Your task to perform on an android device: make emails show in primary in the gmail app Image 0: 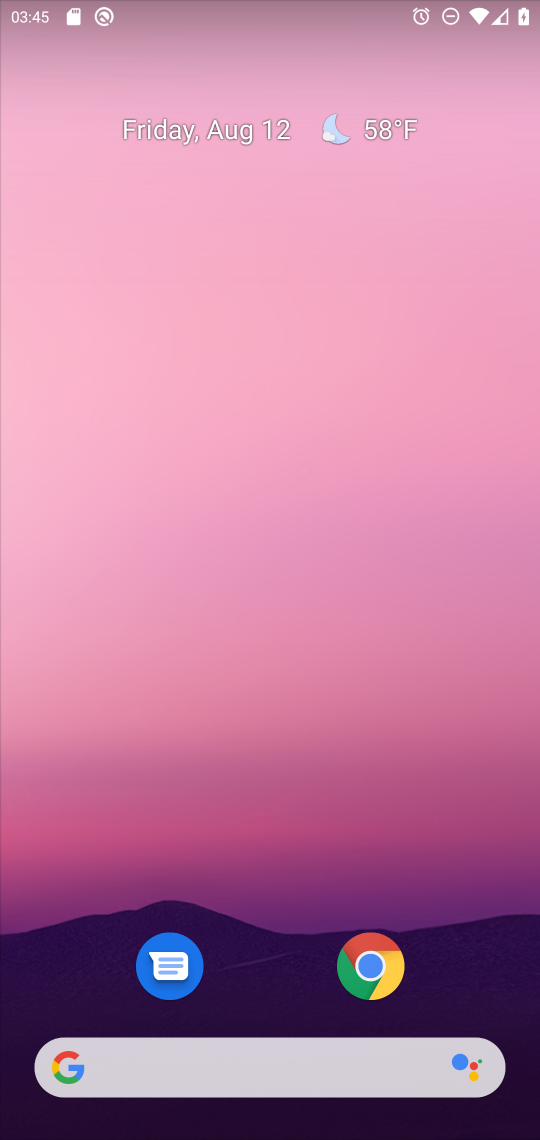
Step 0: drag from (282, 878) to (385, 56)
Your task to perform on an android device: make emails show in primary in the gmail app Image 1: 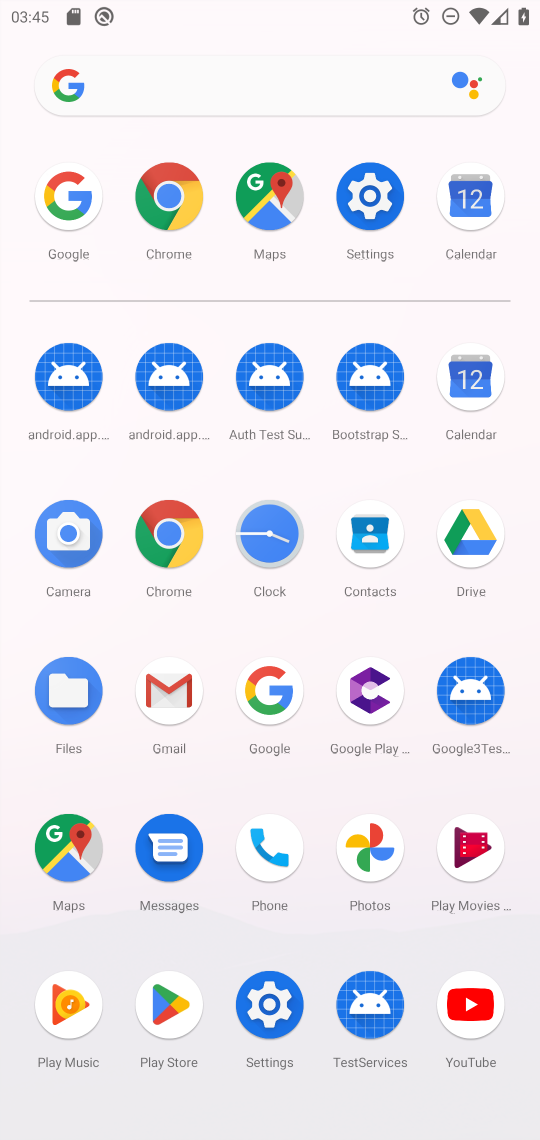
Step 1: click (178, 668)
Your task to perform on an android device: make emails show in primary in the gmail app Image 2: 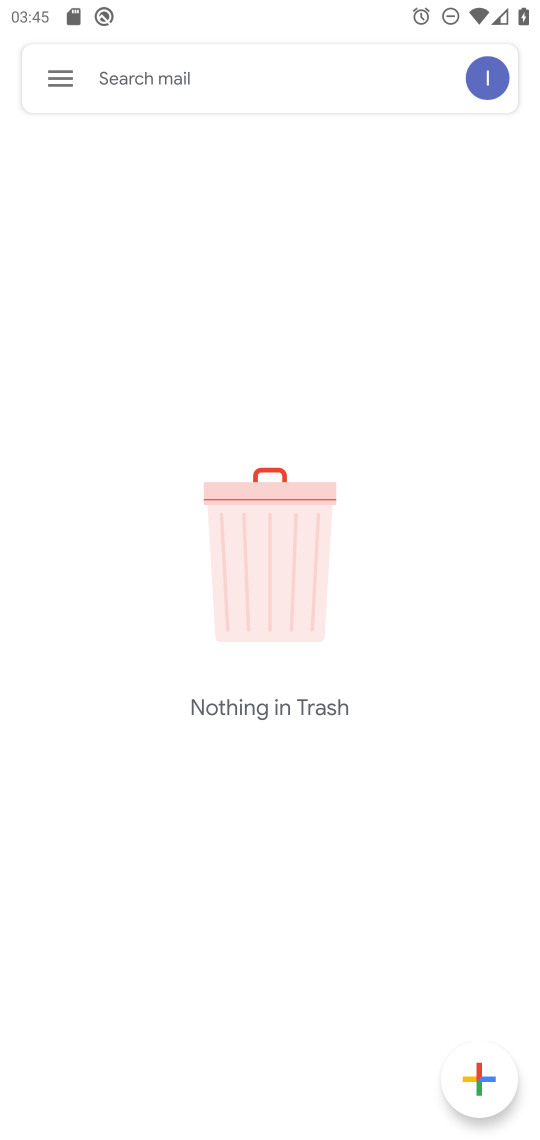
Step 2: click (54, 68)
Your task to perform on an android device: make emails show in primary in the gmail app Image 3: 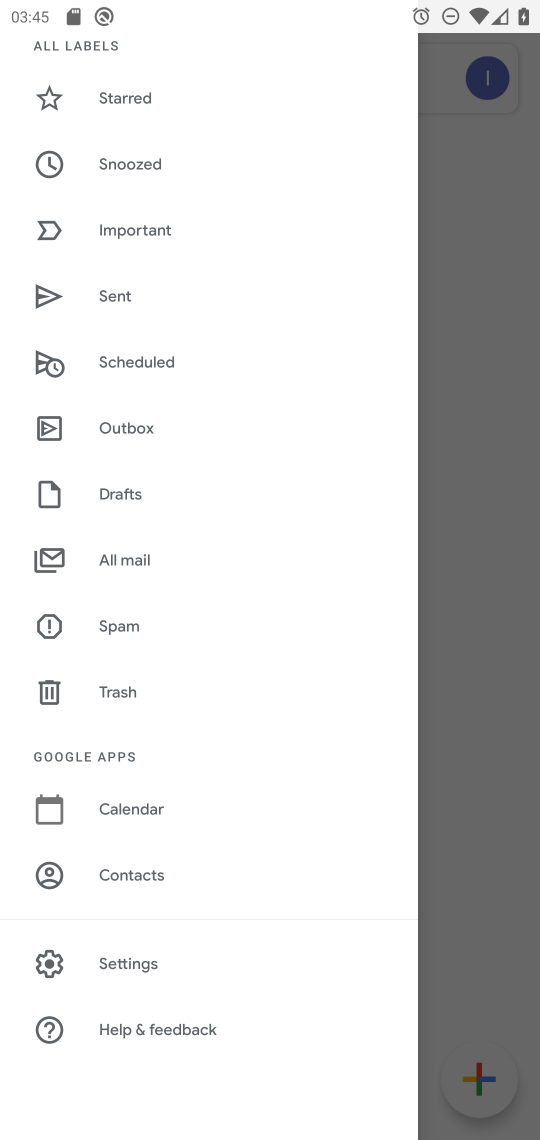
Step 3: click (112, 955)
Your task to perform on an android device: make emails show in primary in the gmail app Image 4: 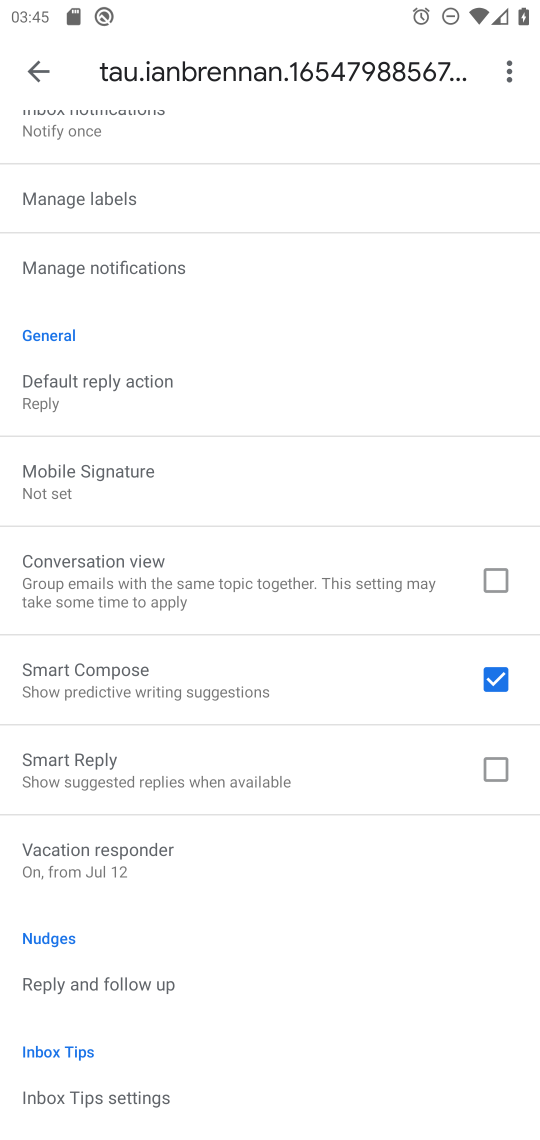
Step 4: drag from (394, 292) to (350, 598)
Your task to perform on an android device: make emails show in primary in the gmail app Image 5: 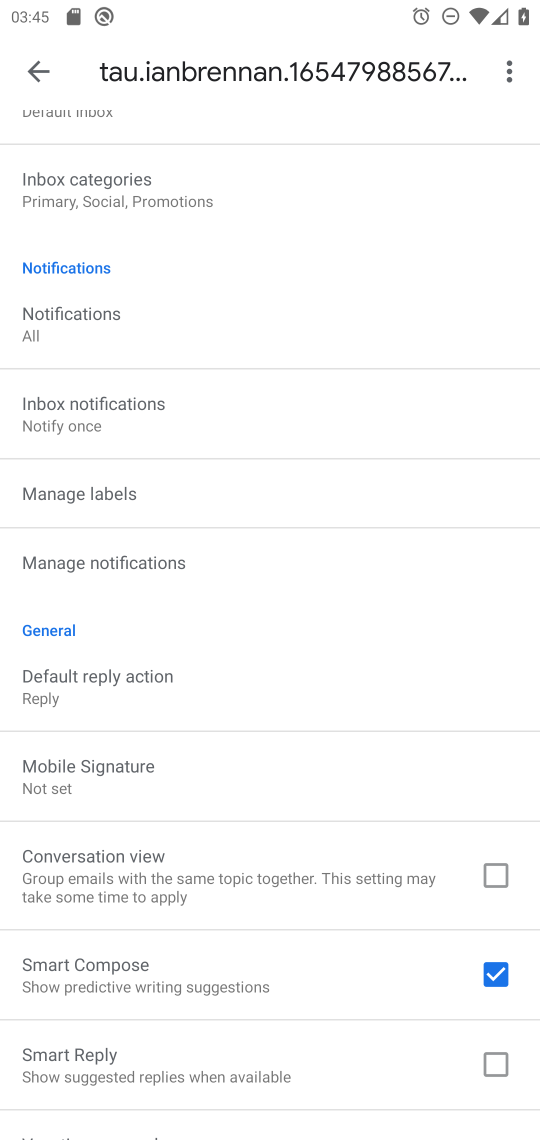
Step 5: click (199, 195)
Your task to perform on an android device: make emails show in primary in the gmail app Image 6: 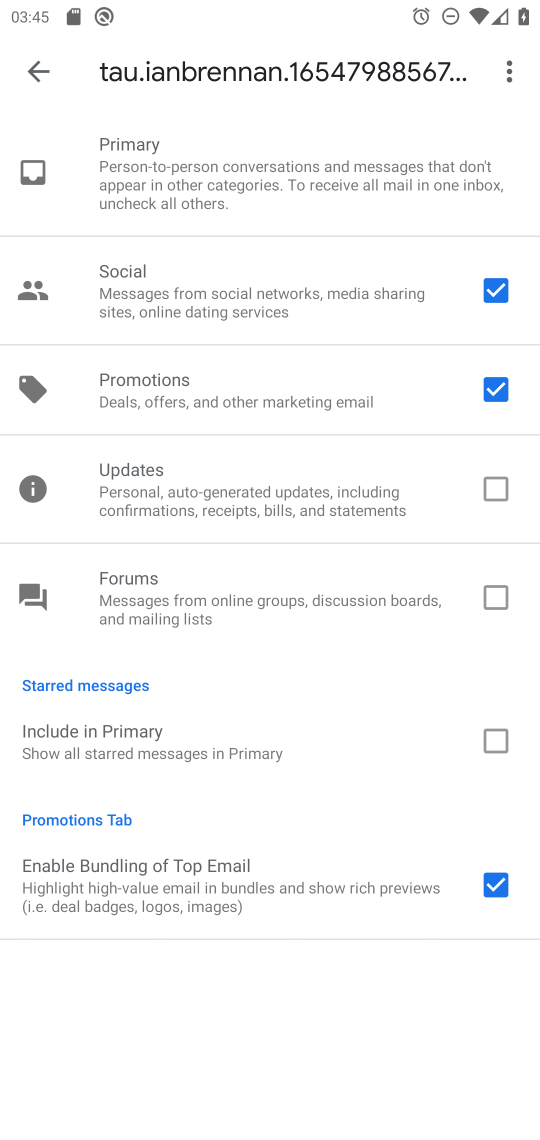
Step 6: task complete